Your task to perform on an android device: turn notification dots on Image 0: 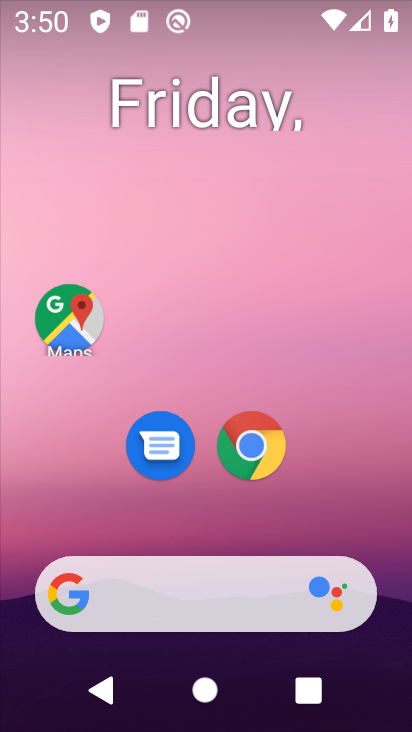
Step 0: drag from (401, 663) to (311, 52)
Your task to perform on an android device: turn notification dots on Image 1: 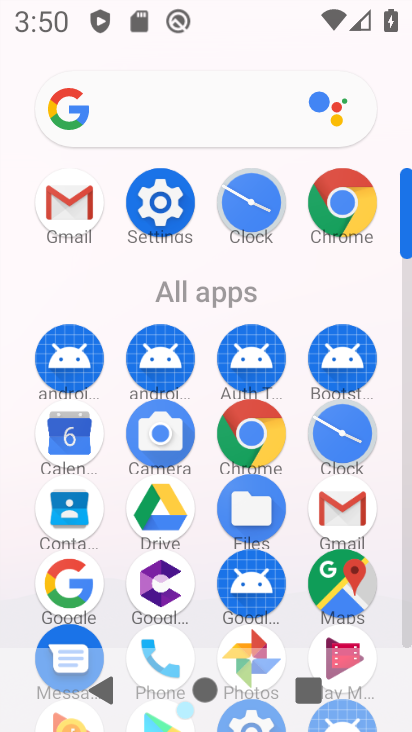
Step 1: drag from (24, 619) to (13, 279)
Your task to perform on an android device: turn notification dots on Image 2: 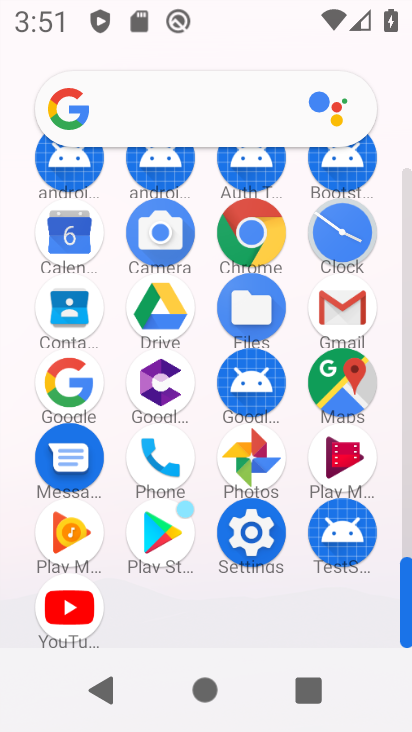
Step 2: click (246, 521)
Your task to perform on an android device: turn notification dots on Image 3: 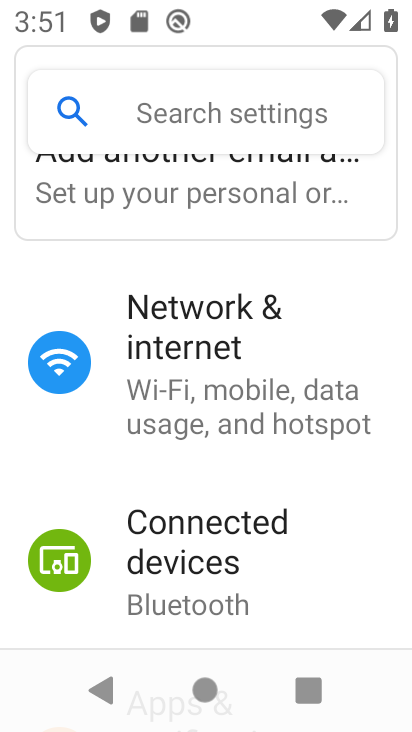
Step 3: drag from (289, 515) to (262, 126)
Your task to perform on an android device: turn notification dots on Image 4: 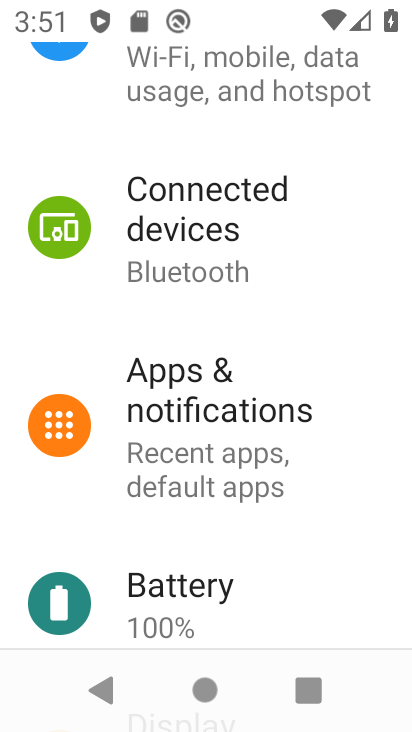
Step 4: drag from (261, 545) to (273, 148)
Your task to perform on an android device: turn notification dots on Image 5: 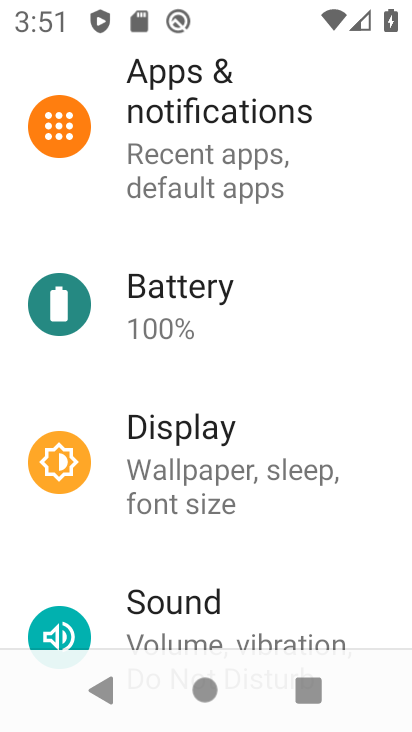
Step 5: drag from (265, 528) to (276, 82)
Your task to perform on an android device: turn notification dots on Image 6: 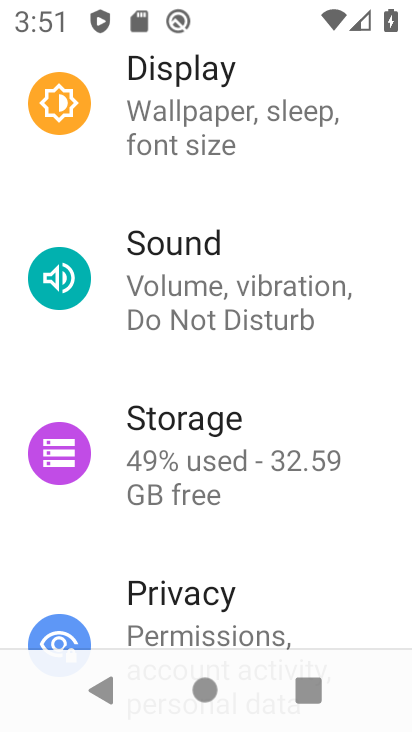
Step 6: drag from (272, 489) to (287, 117)
Your task to perform on an android device: turn notification dots on Image 7: 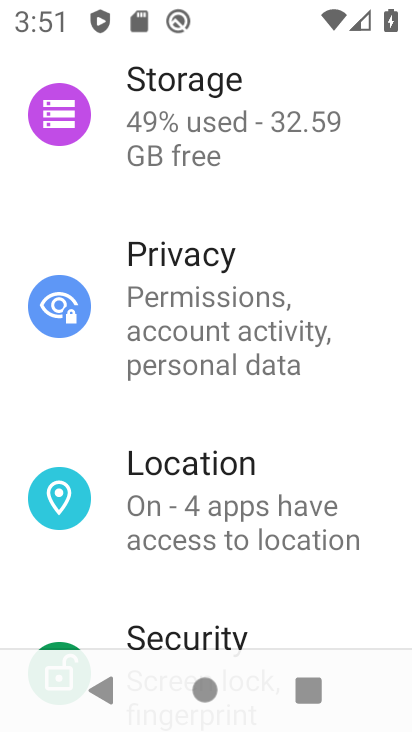
Step 7: drag from (291, 522) to (294, 110)
Your task to perform on an android device: turn notification dots on Image 8: 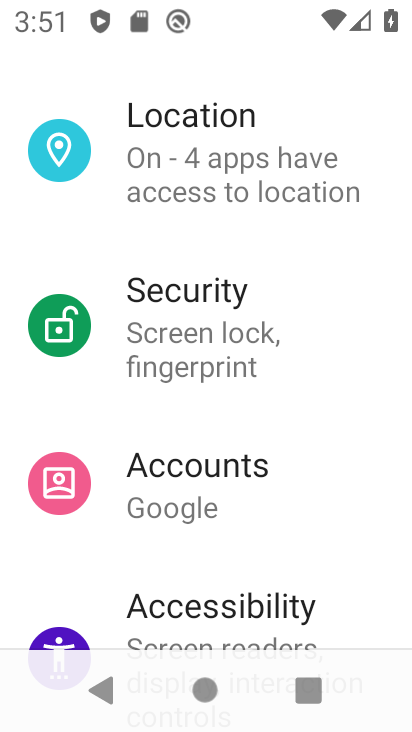
Step 8: drag from (285, 549) to (293, 182)
Your task to perform on an android device: turn notification dots on Image 9: 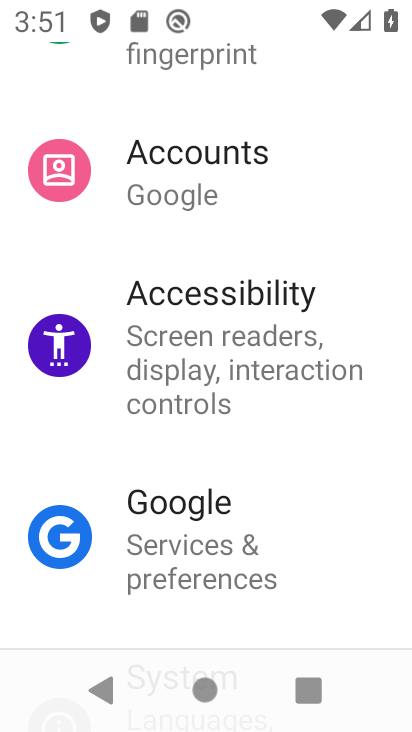
Step 9: drag from (260, 128) to (258, 544)
Your task to perform on an android device: turn notification dots on Image 10: 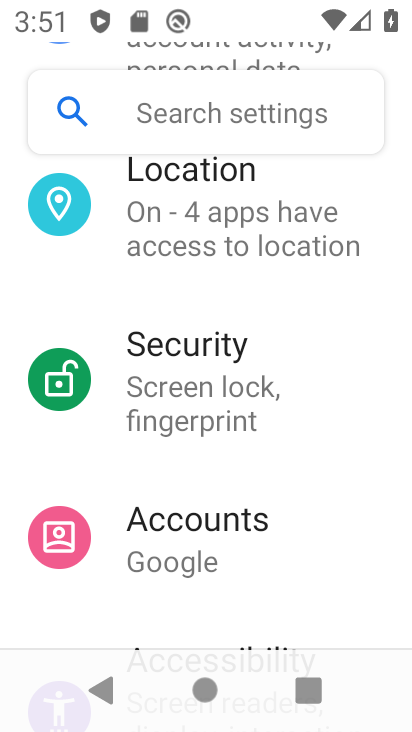
Step 10: drag from (269, 245) to (278, 578)
Your task to perform on an android device: turn notification dots on Image 11: 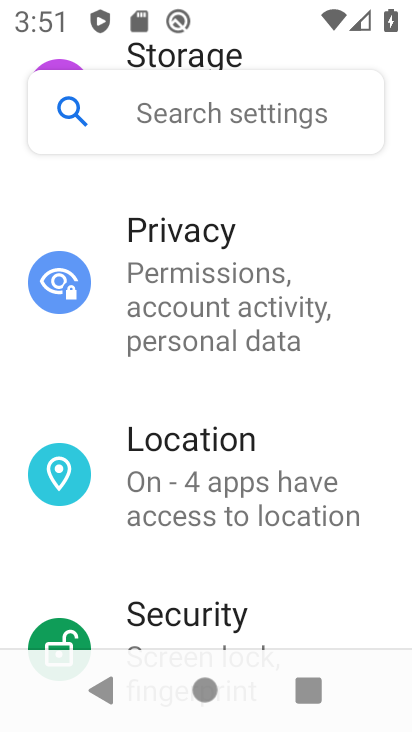
Step 11: drag from (276, 251) to (300, 565)
Your task to perform on an android device: turn notification dots on Image 12: 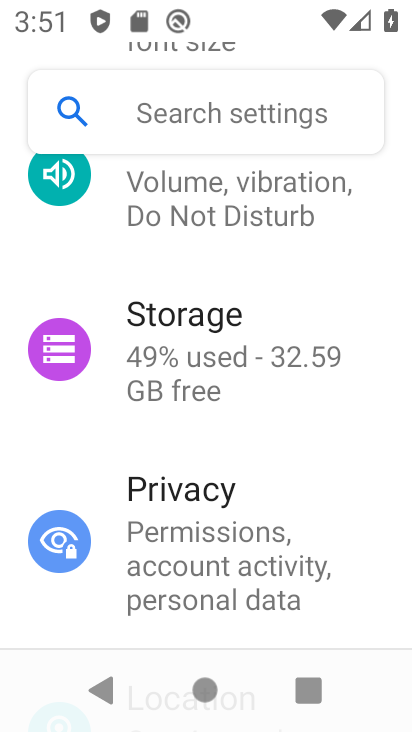
Step 12: drag from (294, 225) to (282, 572)
Your task to perform on an android device: turn notification dots on Image 13: 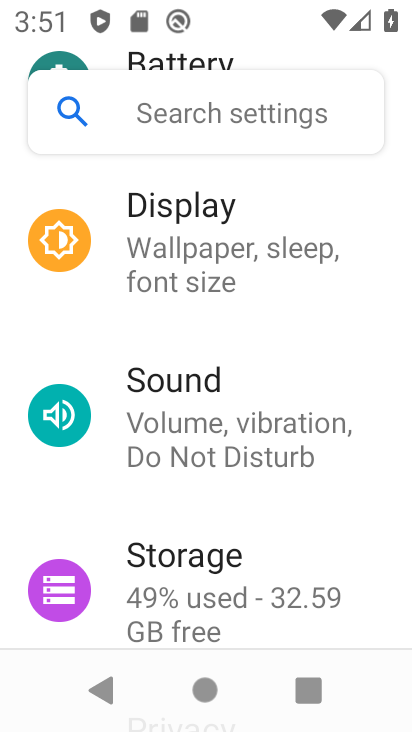
Step 13: drag from (279, 259) to (279, 642)
Your task to perform on an android device: turn notification dots on Image 14: 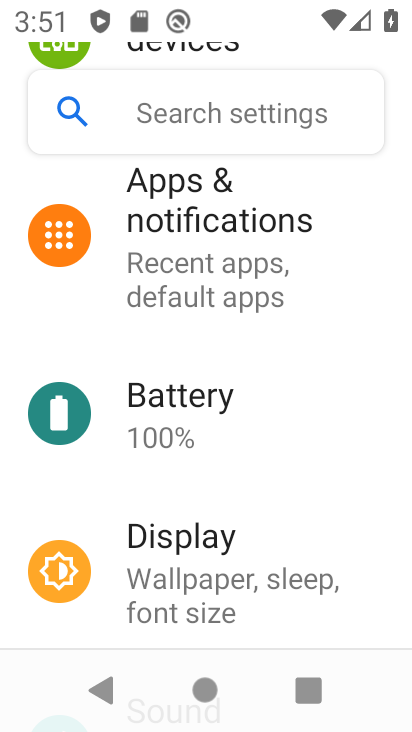
Step 14: drag from (265, 235) to (276, 455)
Your task to perform on an android device: turn notification dots on Image 15: 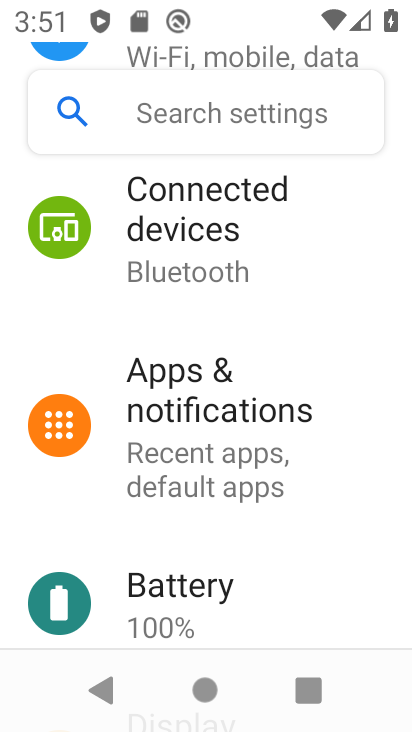
Step 15: click (204, 405)
Your task to perform on an android device: turn notification dots on Image 16: 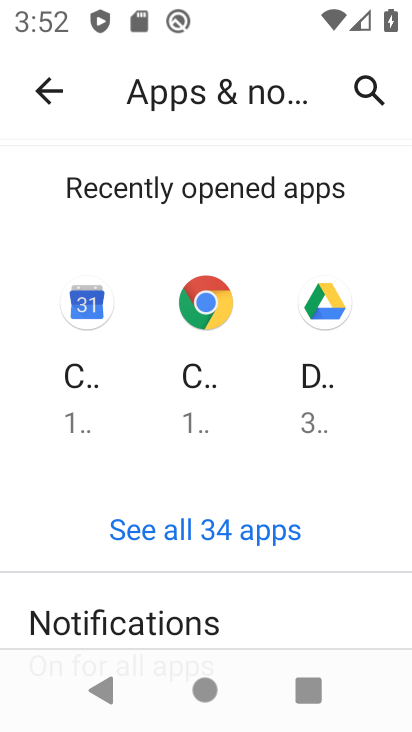
Step 16: drag from (288, 537) to (282, 129)
Your task to perform on an android device: turn notification dots on Image 17: 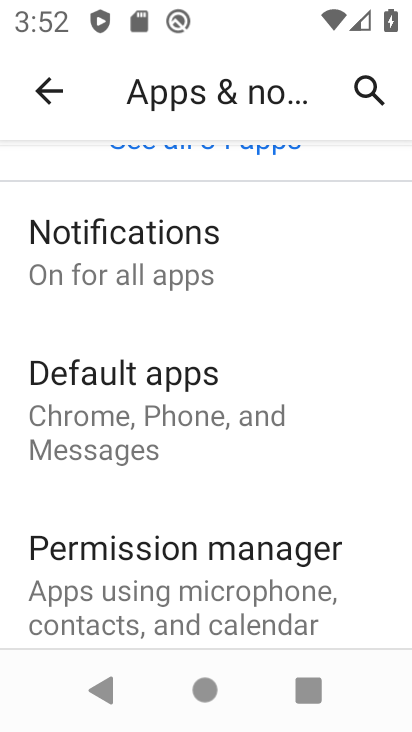
Step 17: drag from (280, 538) to (262, 201)
Your task to perform on an android device: turn notification dots on Image 18: 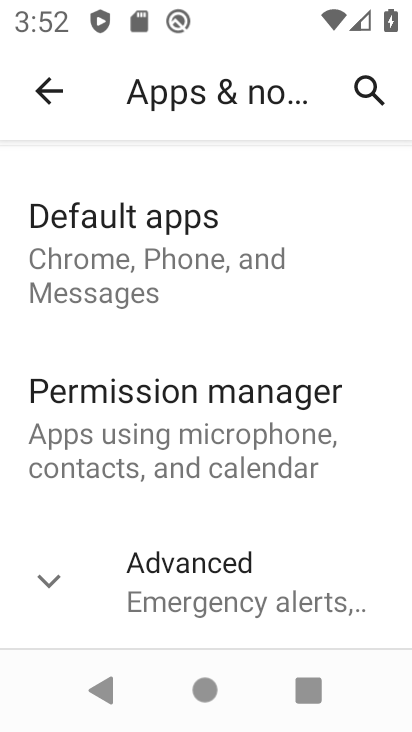
Step 18: drag from (248, 189) to (249, 509)
Your task to perform on an android device: turn notification dots on Image 19: 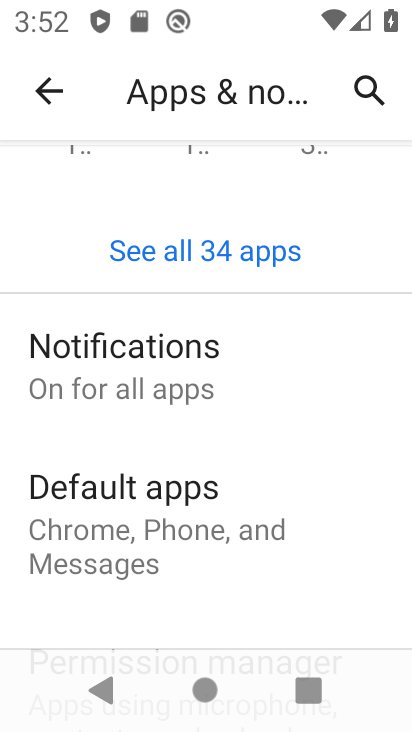
Step 19: click (201, 399)
Your task to perform on an android device: turn notification dots on Image 20: 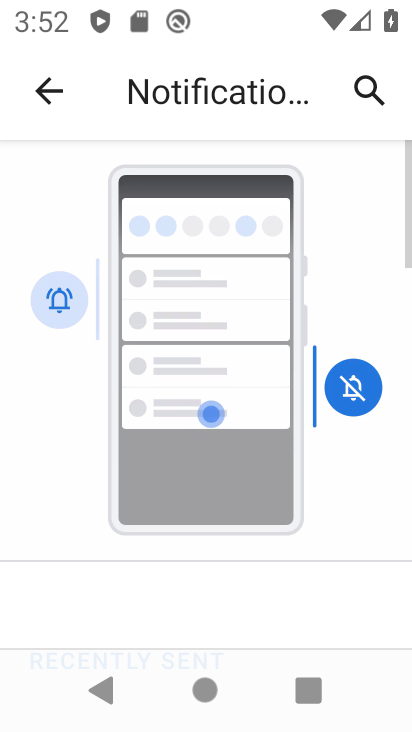
Step 20: drag from (259, 556) to (267, 147)
Your task to perform on an android device: turn notification dots on Image 21: 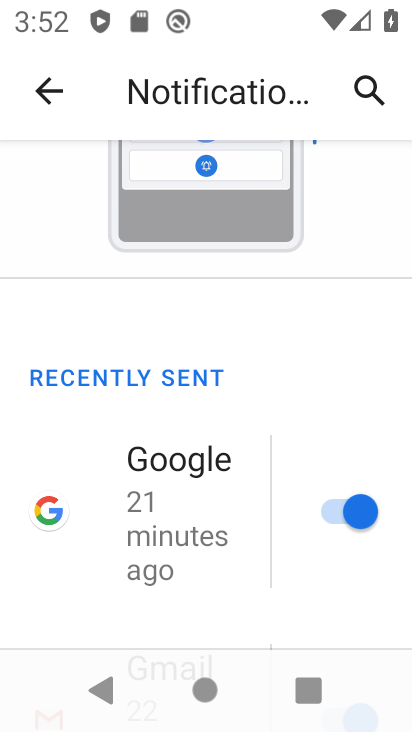
Step 21: drag from (220, 561) to (238, 109)
Your task to perform on an android device: turn notification dots on Image 22: 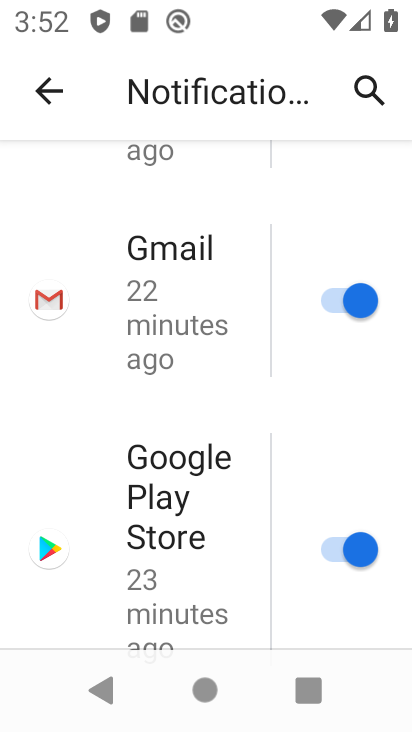
Step 22: drag from (229, 560) to (231, 168)
Your task to perform on an android device: turn notification dots on Image 23: 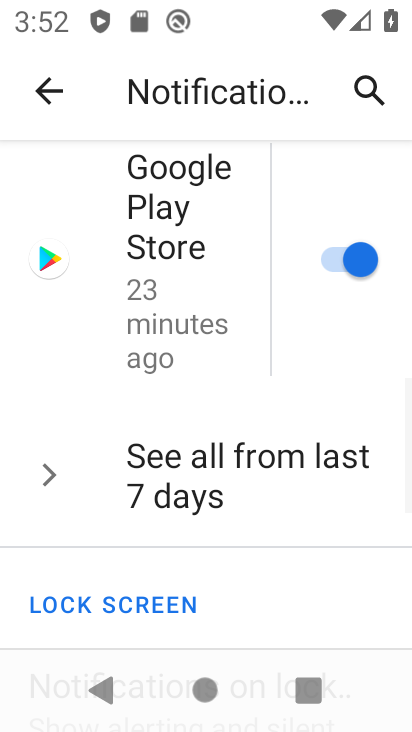
Step 23: drag from (234, 591) to (250, 179)
Your task to perform on an android device: turn notification dots on Image 24: 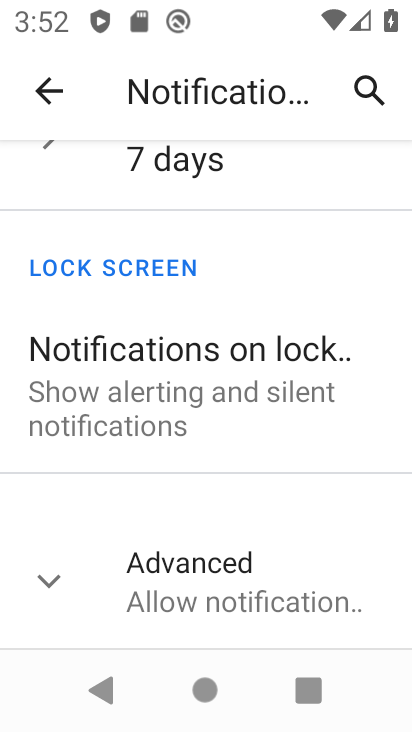
Step 24: click (241, 557)
Your task to perform on an android device: turn notification dots on Image 25: 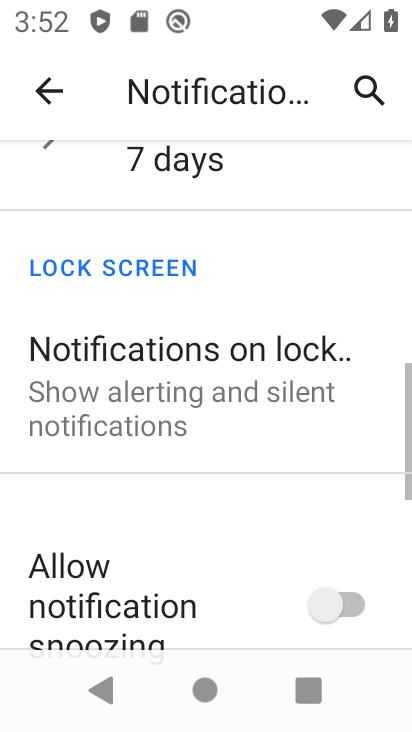
Step 25: task complete